Your task to perform on an android device: show emergency info Image 0: 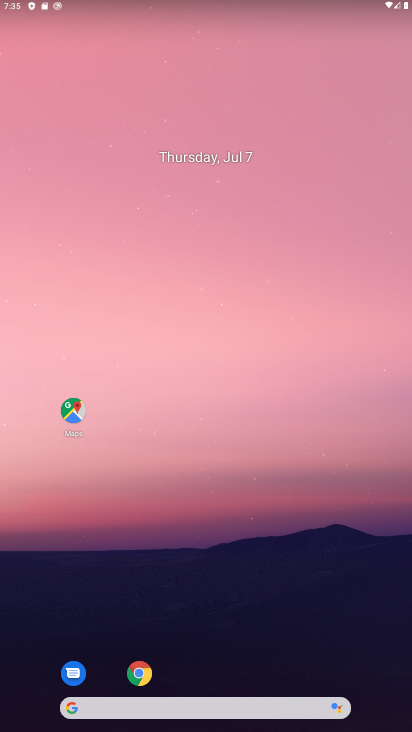
Step 0: drag from (210, 284) to (236, 88)
Your task to perform on an android device: show emergency info Image 1: 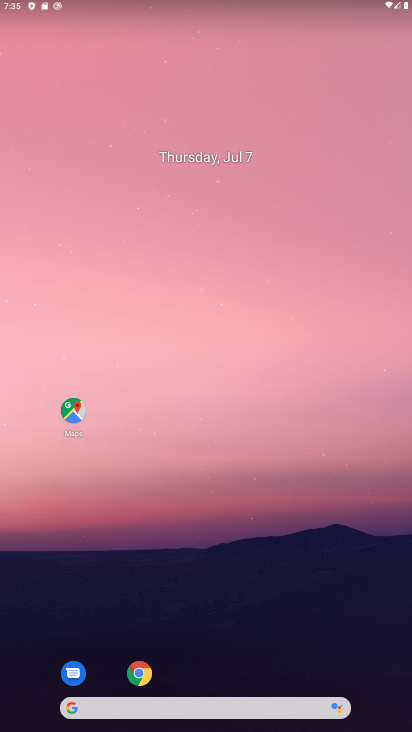
Step 1: drag from (178, 612) to (231, 7)
Your task to perform on an android device: show emergency info Image 2: 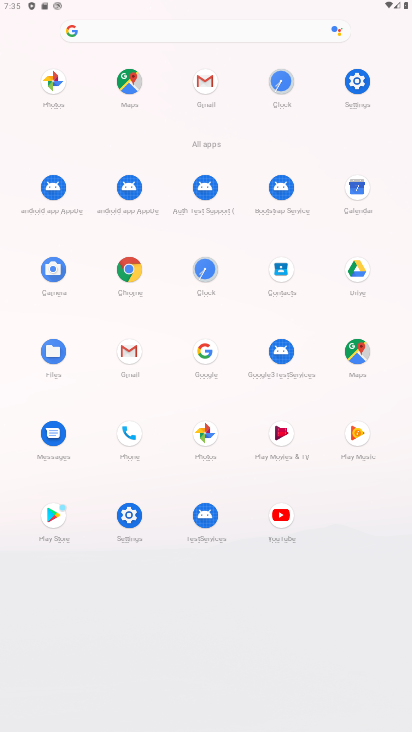
Step 2: click (357, 84)
Your task to perform on an android device: show emergency info Image 3: 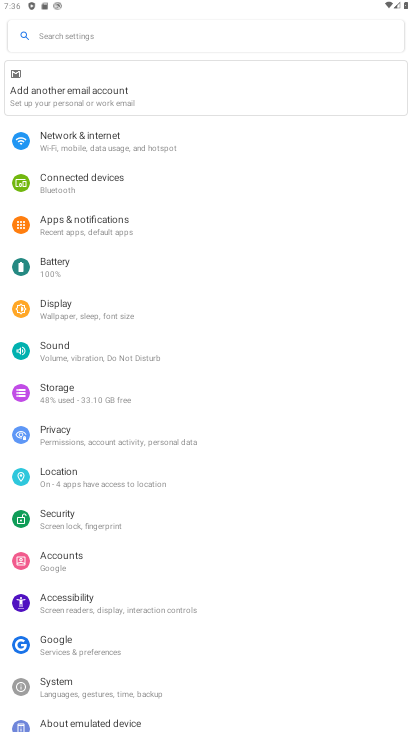
Step 3: drag from (136, 392) to (147, 250)
Your task to perform on an android device: show emergency info Image 4: 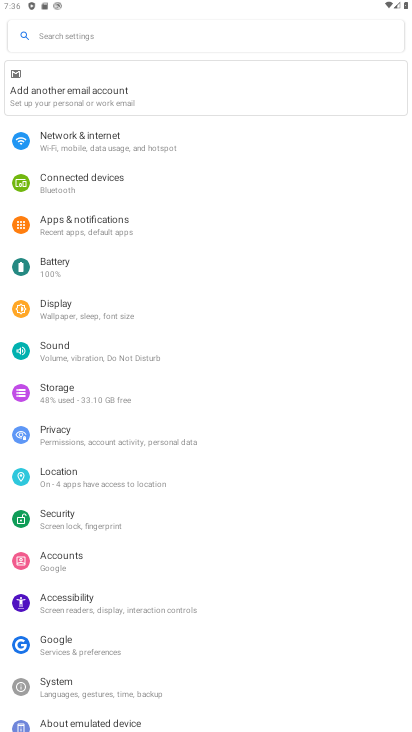
Step 4: click (36, 726)
Your task to perform on an android device: show emergency info Image 5: 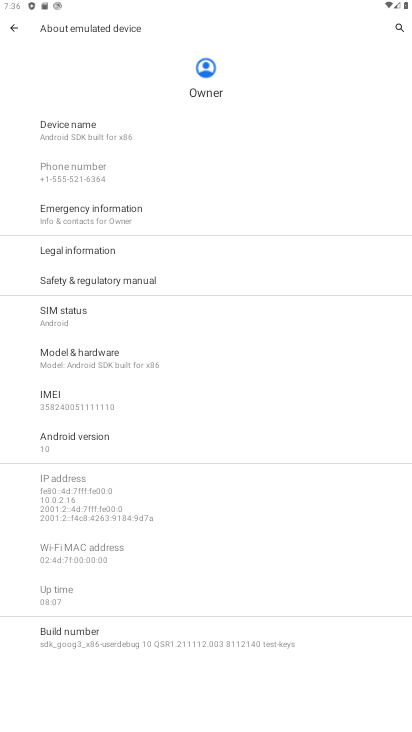
Step 5: click (145, 214)
Your task to perform on an android device: show emergency info Image 6: 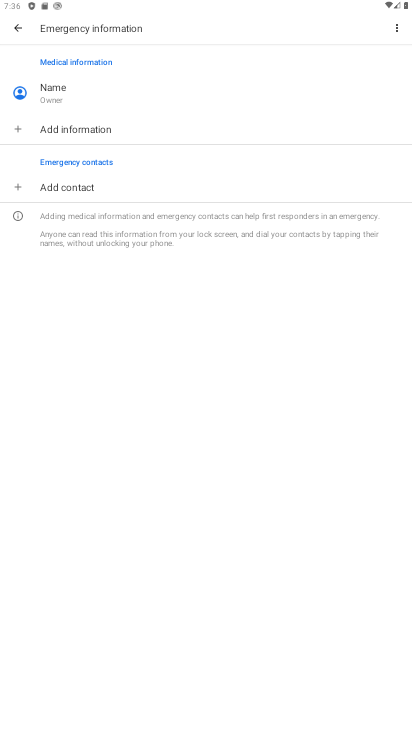
Step 6: task complete